Your task to perform on an android device: Go to Maps Image 0: 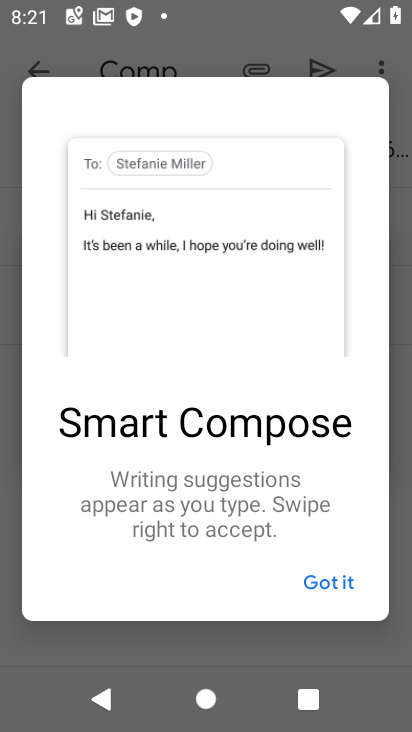
Step 0: press home button
Your task to perform on an android device: Go to Maps Image 1: 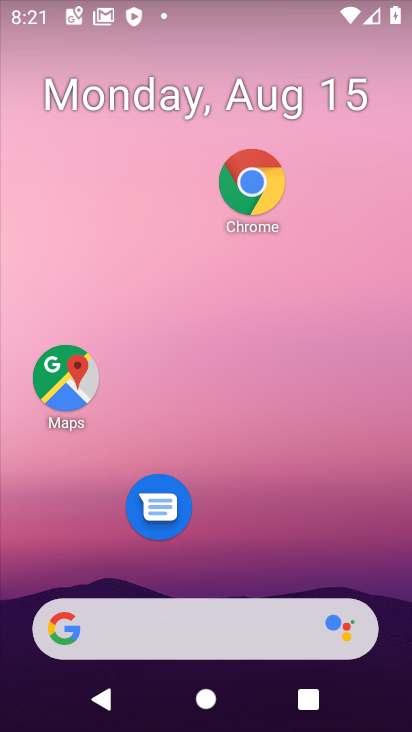
Step 1: click (72, 396)
Your task to perform on an android device: Go to Maps Image 2: 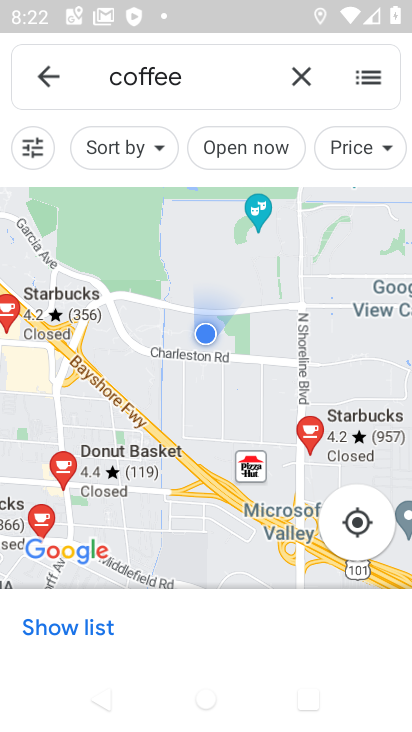
Step 2: task complete